Your task to perform on an android device: turn on airplane mode Image 0: 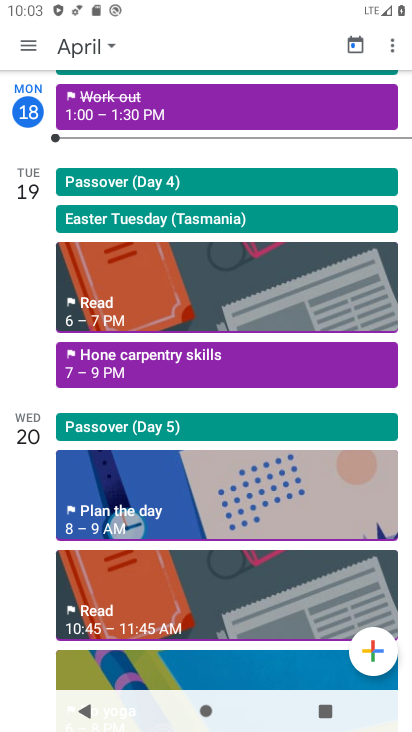
Step 0: press back button
Your task to perform on an android device: turn on airplane mode Image 1: 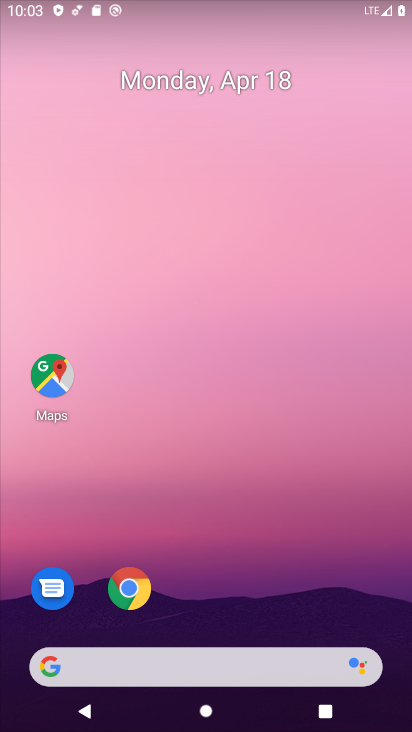
Step 1: drag from (237, 590) to (270, 46)
Your task to perform on an android device: turn on airplane mode Image 2: 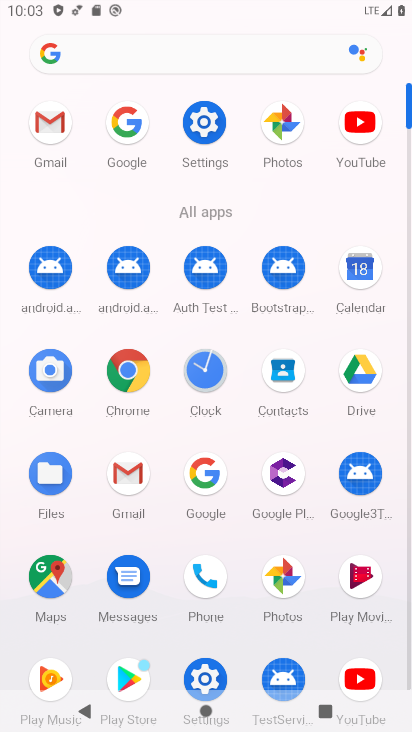
Step 2: click (204, 121)
Your task to perform on an android device: turn on airplane mode Image 3: 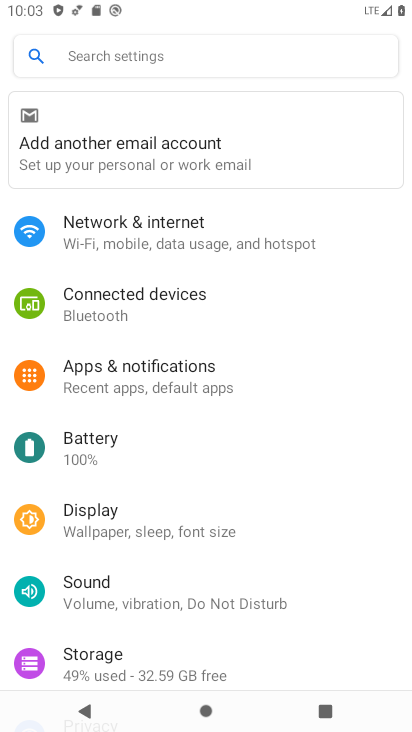
Step 3: click (234, 233)
Your task to perform on an android device: turn on airplane mode Image 4: 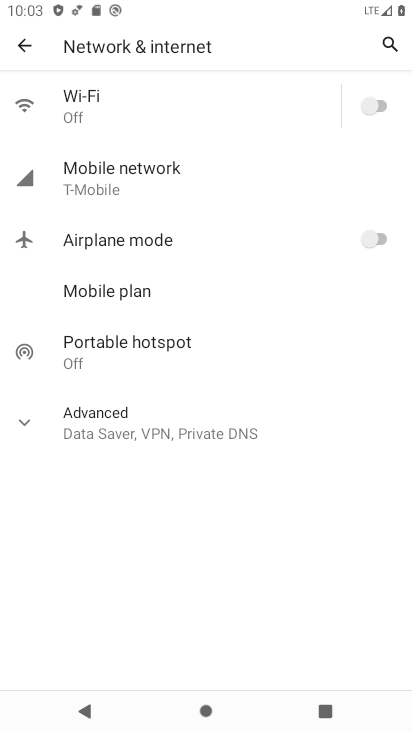
Step 4: click (132, 235)
Your task to perform on an android device: turn on airplane mode Image 5: 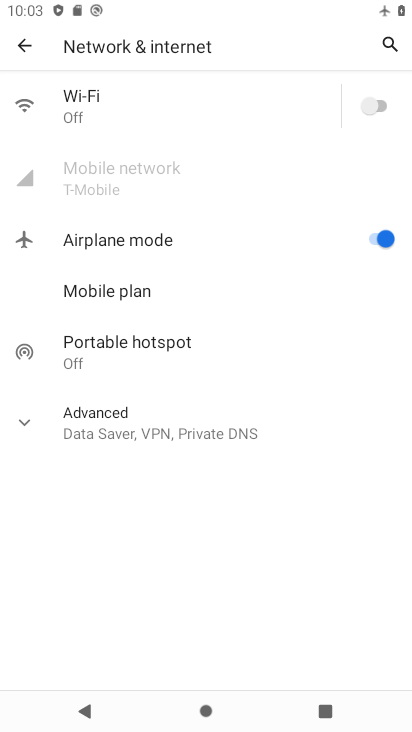
Step 5: task complete